Your task to perform on an android device: Open location settings Image 0: 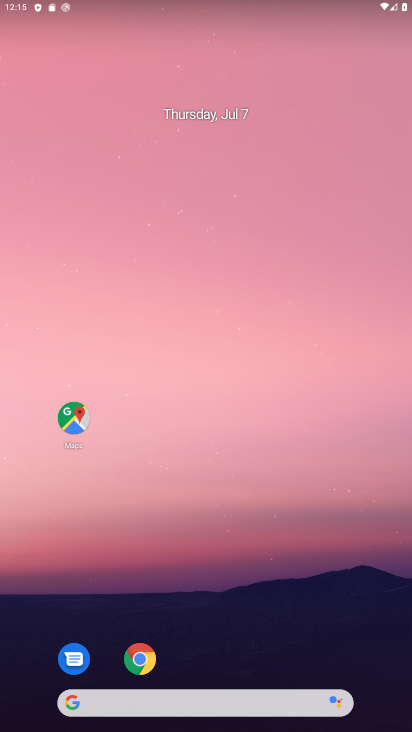
Step 0: drag from (298, 558) to (226, 114)
Your task to perform on an android device: Open location settings Image 1: 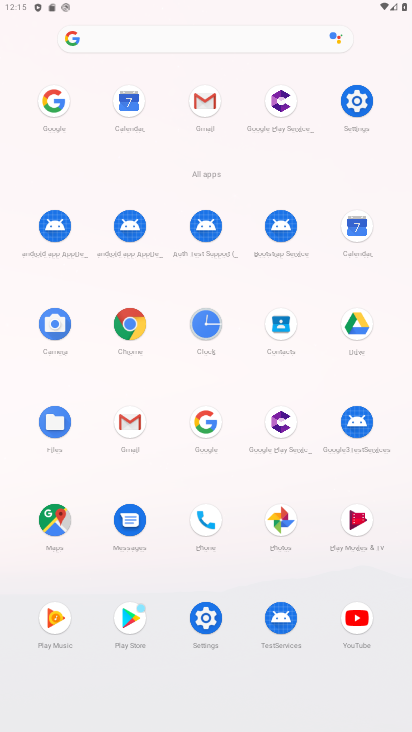
Step 1: click (358, 99)
Your task to perform on an android device: Open location settings Image 2: 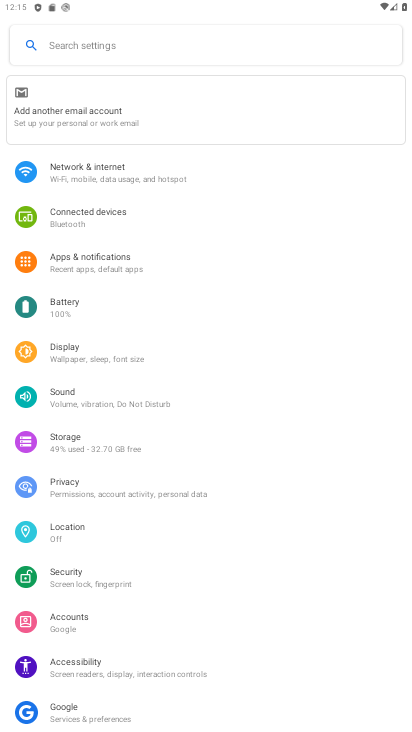
Step 2: click (68, 540)
Your task to perform on an android device: Open location settings Image 3: 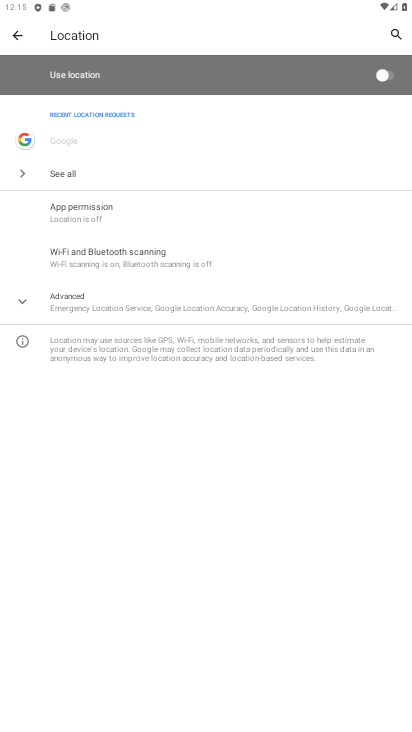
Step 3: task complete